Your task to perform on an android device: Open settings on Google Maps Image 0: 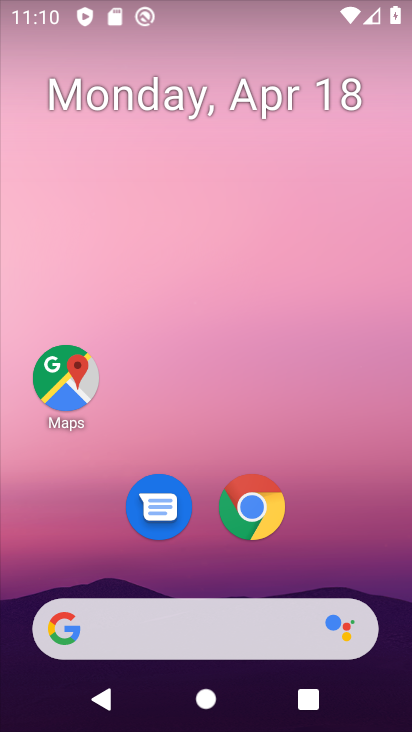
Step 0: click (271, 516)
Your task to perform on an android device: Open settings on Google Maps Image 1: 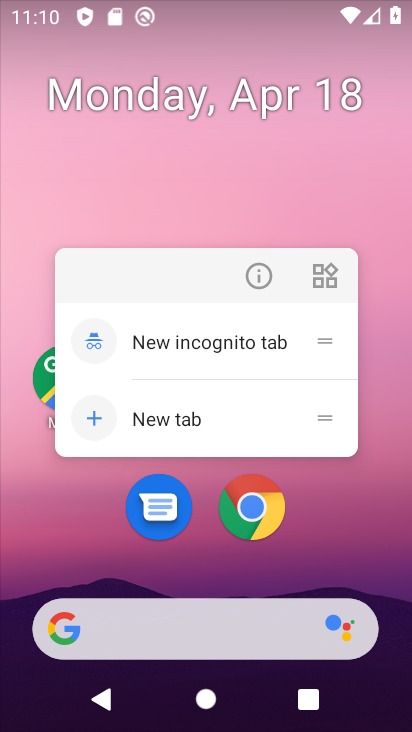
Step 1: click (43, 390)
Your task to perform on an android device: Open settings on Google Maps Image 2: 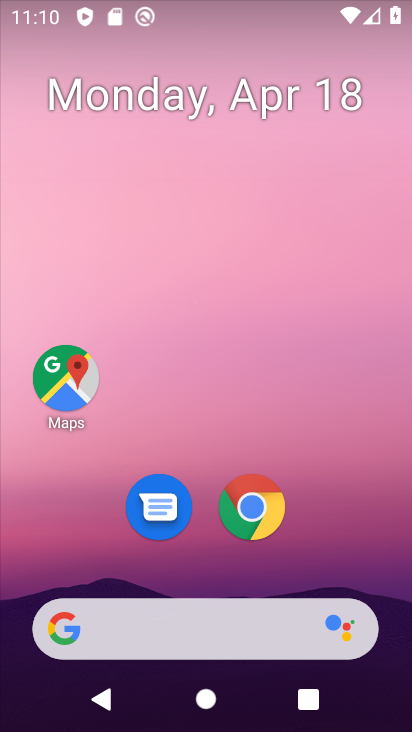
Step 2: click (78, 381)
Your task to perform on an android device: Open settings on Google Maps Image 3: 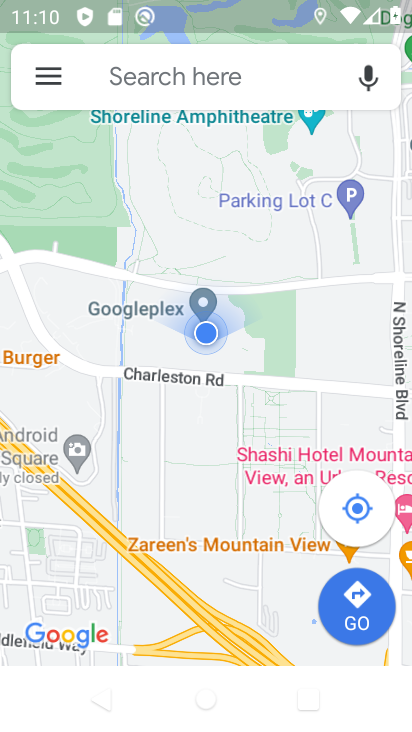
Step 3: task complete